Your task to perform on an android device: Open the Play Movies app and select the watchlist tab. Image 0: 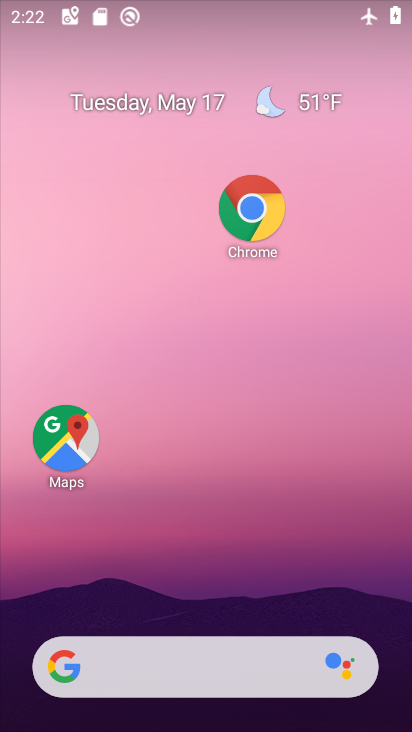
Step 0: drag from (271, 648) to (226, 37)
Your task to perform on an android device: Open the Play Movies app and select the watchlist tab. Image 1: 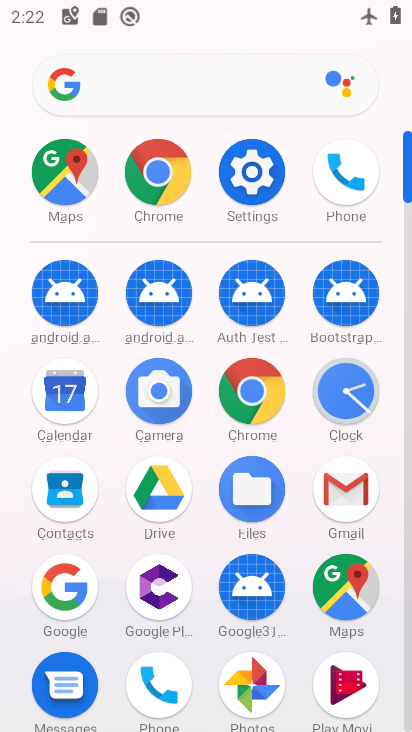
Step 1: click (342, 667)
Your task to perform on an android device: Open the Play Movies app and select the watchlist tab. Image 2: 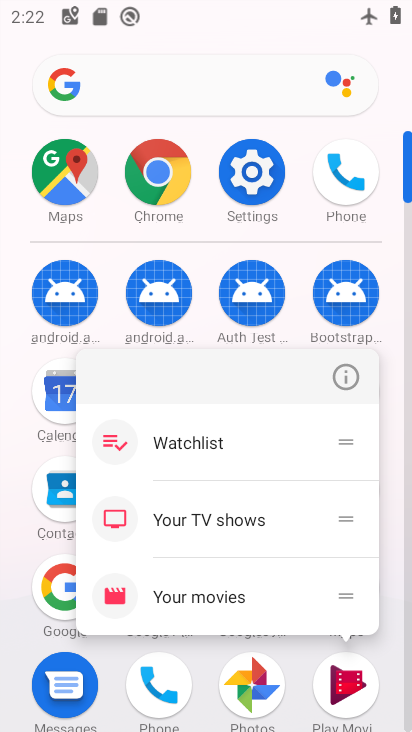
Step 2: click (350, 706)
Your task to perform on an android device: Open the Play Movies app and select the watchlist tab. Image 3: 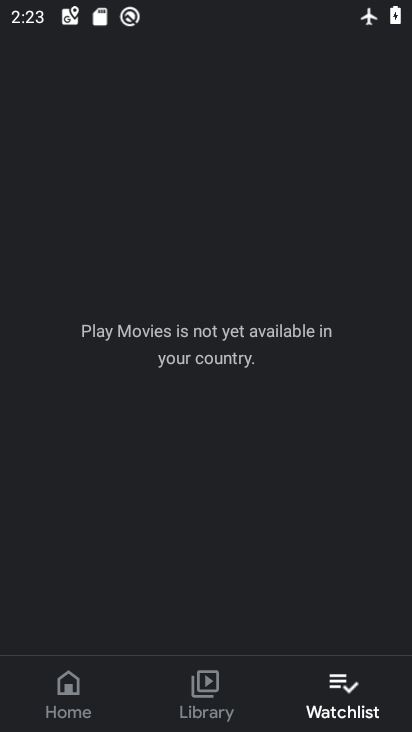
Step 3: task complete